Your task to perform on an android device: toggle notification dots Image 0: 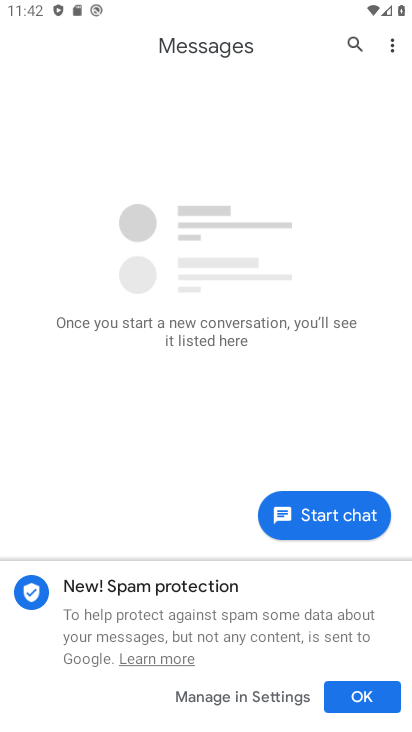
Step 0: press home button
Your task to perform on an android device: toggle notification dots Image 1: 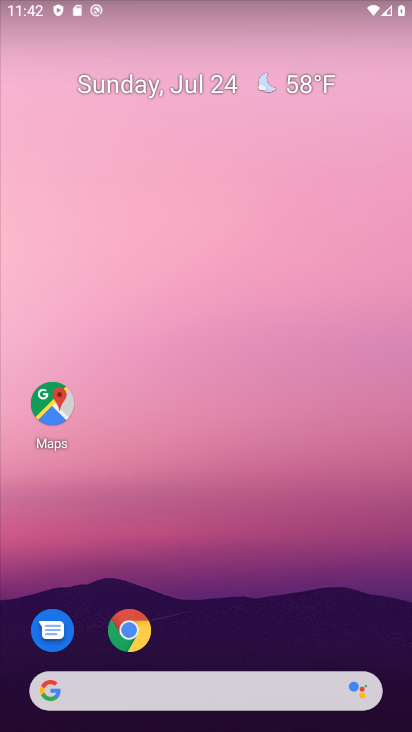
Step 1: drag from (201, 634) to (185, 22)
Your task to perform on an android device: toggle notification dots Image 2: 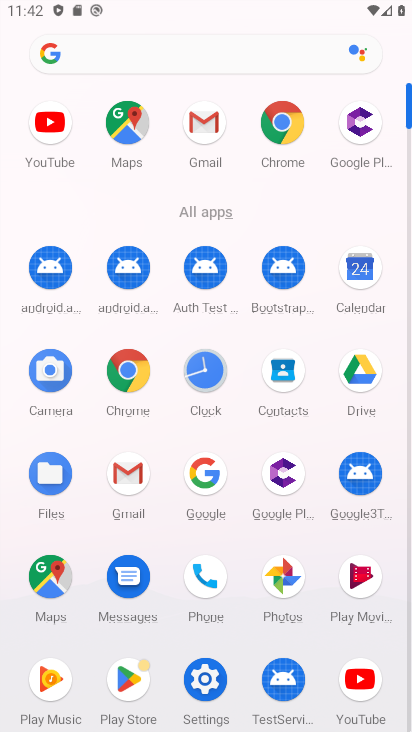
Step 2: click (195, 700)
Your task to perform on an android device: toggle notification dots Image 3: 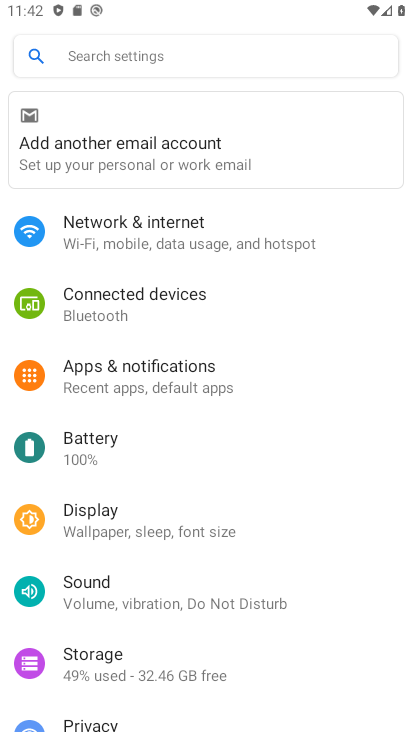
Step 3: click (225, 380)
Your task to perform on an android device: toggle notification dots Image 4: 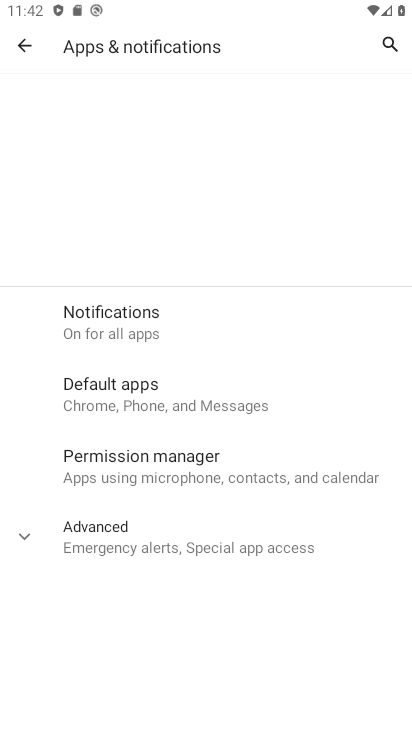
Step 4: click (128, 322)
Your task to perform on an android device: toggle notification dots Image 5: 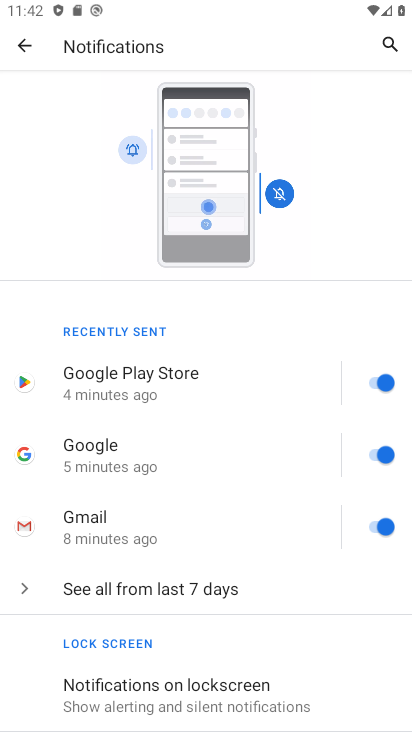
Step 5: drag from (288, 640) to (275, 193)
Your task to perform on an android device: toggle notification dots Image 6: 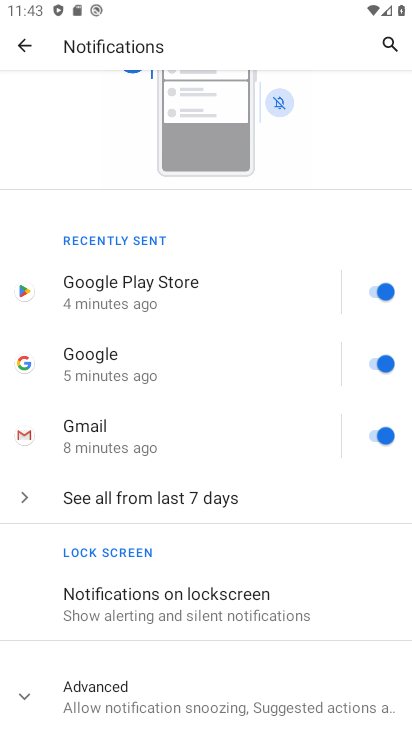
Step 6: click (289, 694)
Your task to perform on an android device: toggle notification dots Image 7: 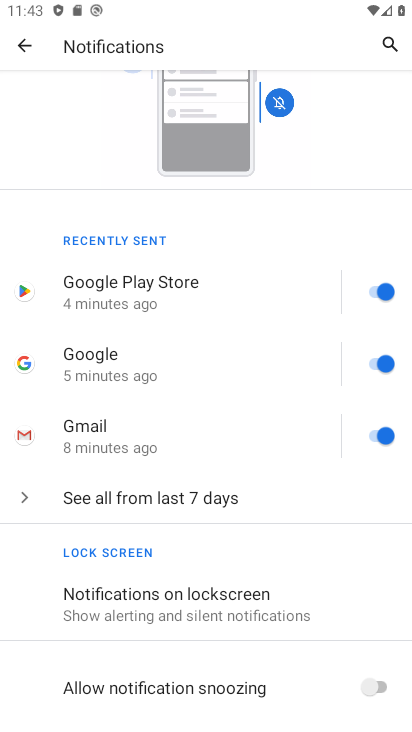
Step 7: drag from (289, 694) to (246, 329)
Your task to perform on an android device: toggle notification dots Image 8: 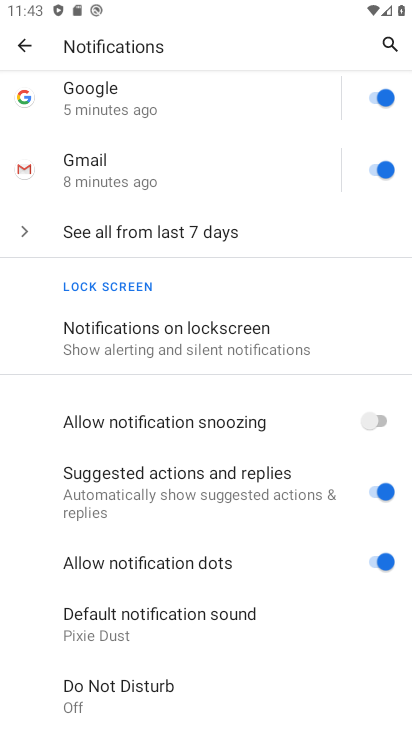
Step 8: click (381, 566)
Your task to perform on an android device: toggle notification dots Image 9: 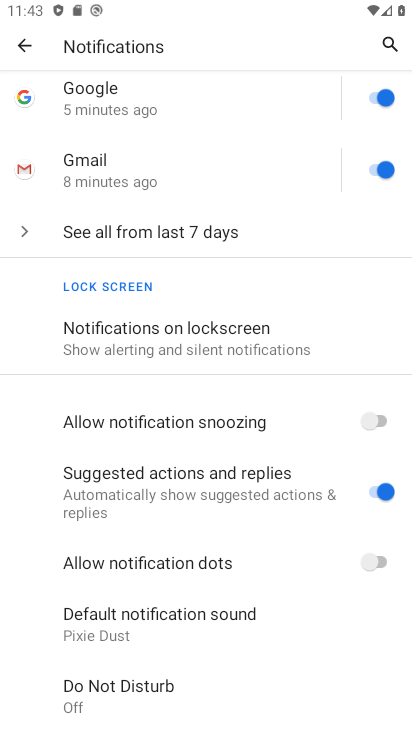
Step 9: task complete